Your task to perform on an android device: Search for vegetarian restaurants on Maps Image 0: 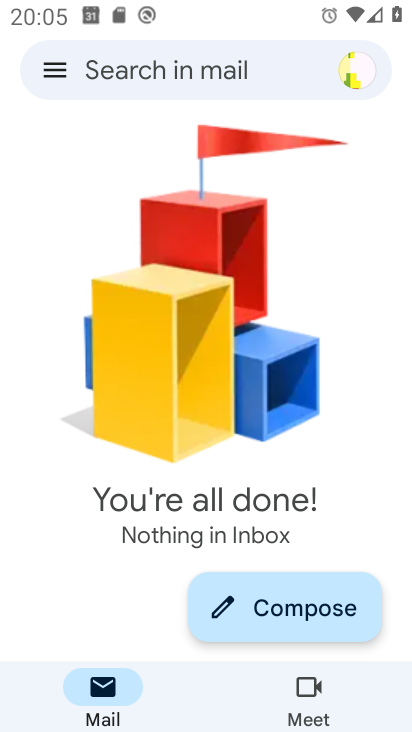
Step 0: press back button
Your task to perform on an android device: Search for vegetarian restaurants on Maps Image 1: 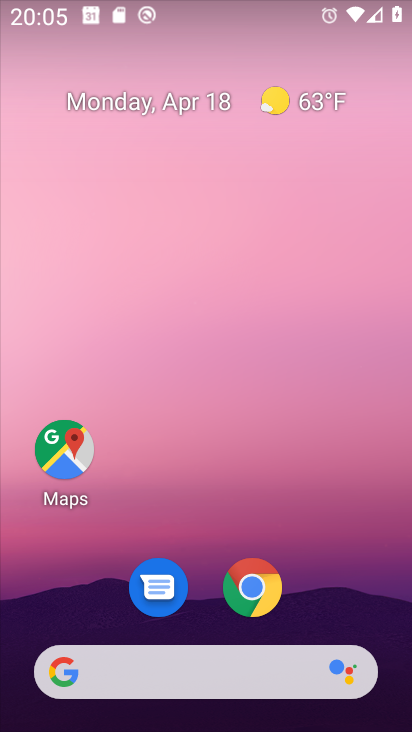
Step 1: click (53, 455)
Your task to perform on an android device: Search for vegetarian restaurants on Maps Image 2: 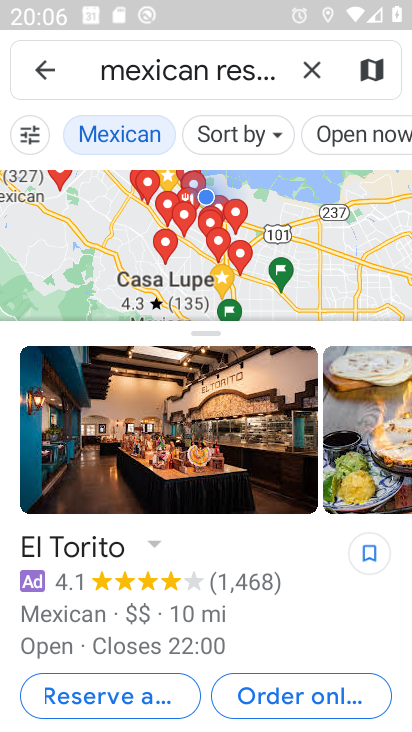
Step 2: click (309, 86)
Your task to perform on an android device: Search for vegetarian restaurants on Maps Image 3: 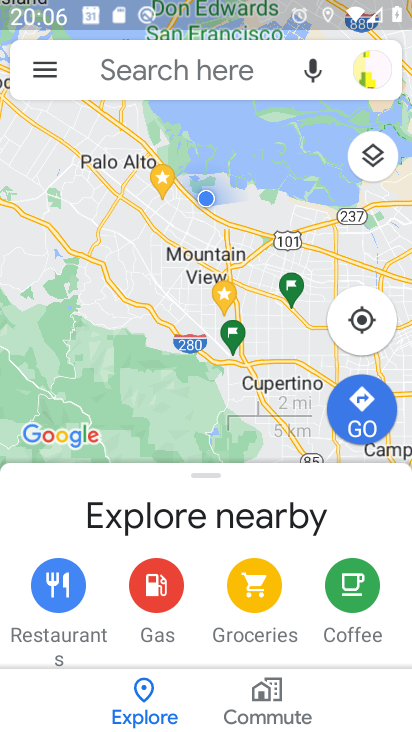
Step 3: click (268, 76)
Your task to perform on an android device: Search for vegetarian restaurants on Maps Image 4: 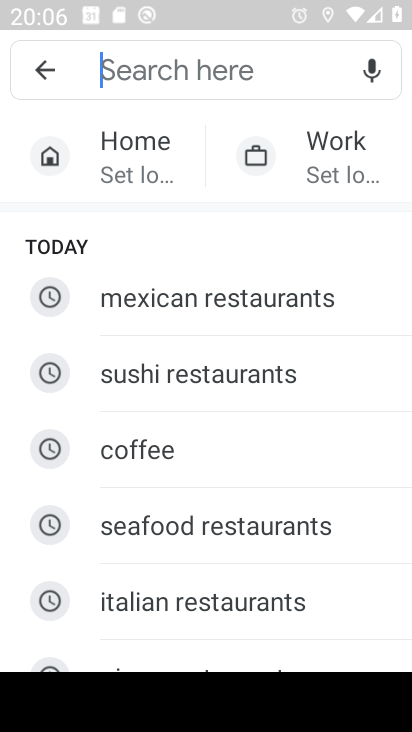
Step 4: type "vegetarian"
Your task to perform on an android device: Search for vegetarian restaurants on Maps Image 5: 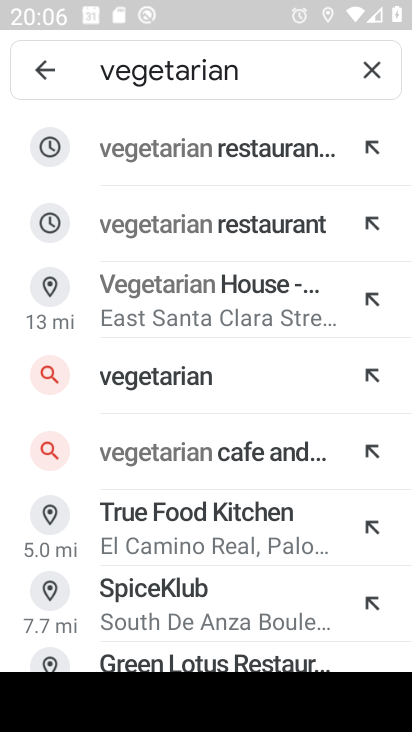
Step 5: click (191, 149)
Your task to perform on an android device: Search for vegetarian restaurants on Maps Image 6: 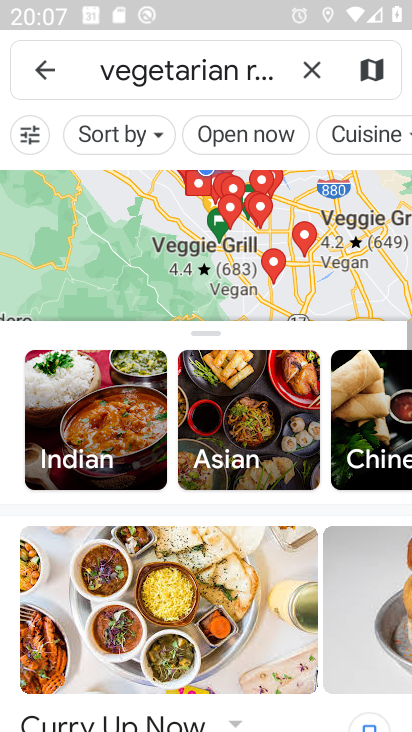
Step 6: task complete